Your task to perform on an android device: Open the map Image 0: 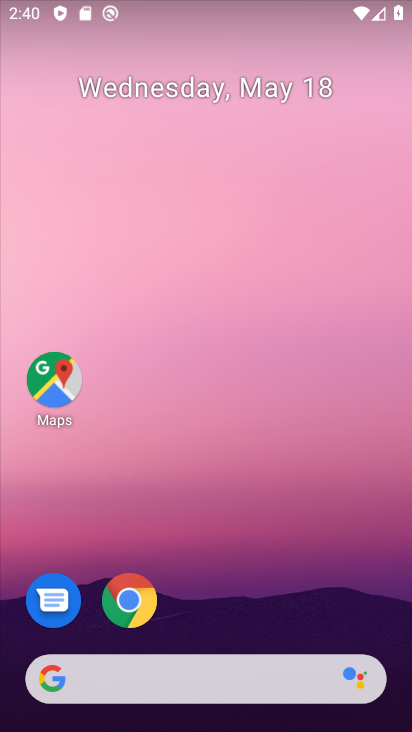
Step 0: drag from (278, 593) to (304, 179)
Your task to perform on an android device: Open the map Image 1: 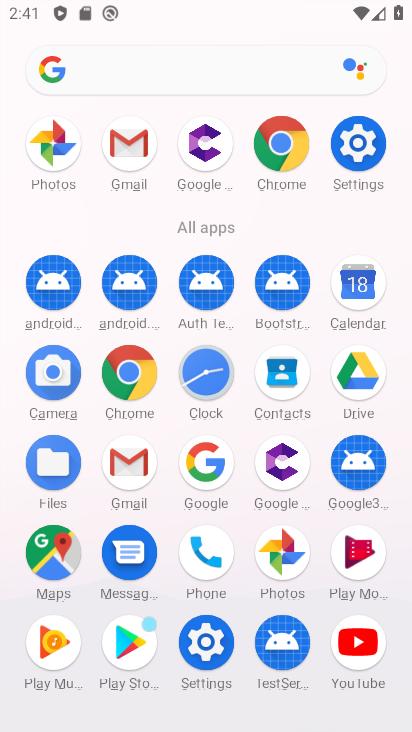
Step 1: click (43, 529)
Your task to perform on an android device: Open the map Image 2: 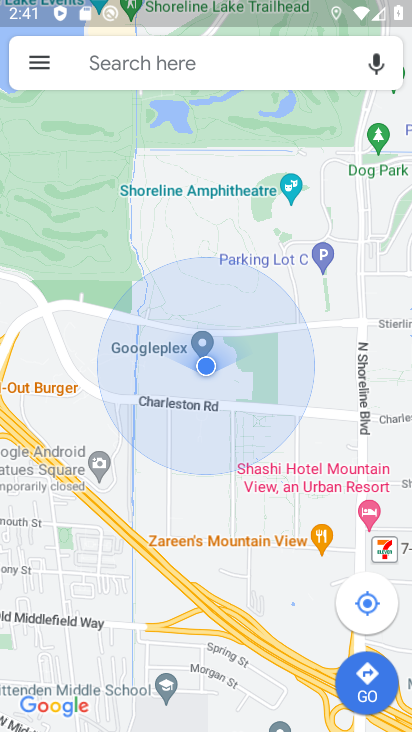
Step 2: task complete